Your task to perform on an android device: open app "Grab" (install if not already installed) and go to login screen Image 0: 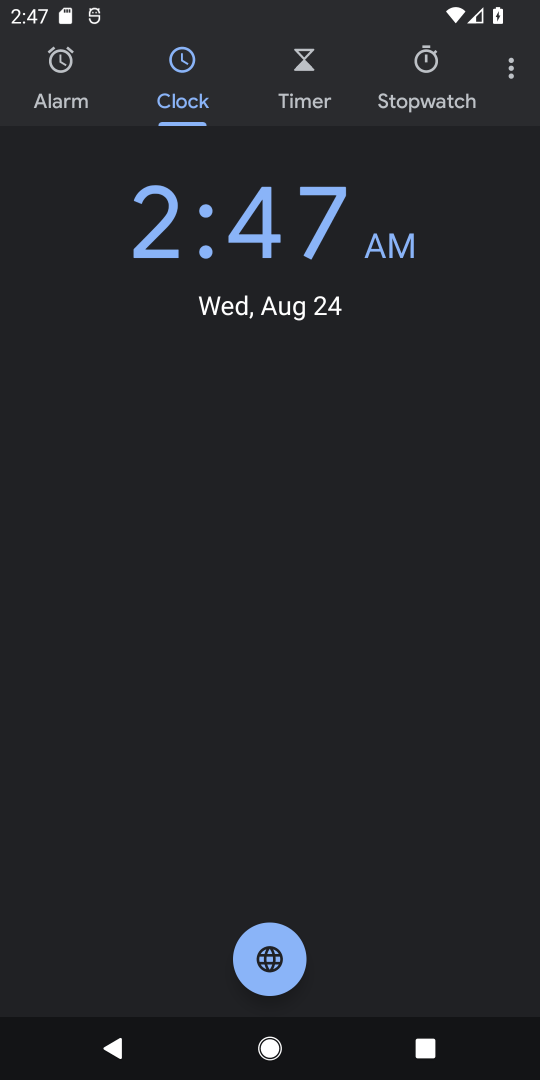
Step 0: press home button
Your task to perform on an android device: open app "Grab" (install if not already installed) and go to login screen Image 1: 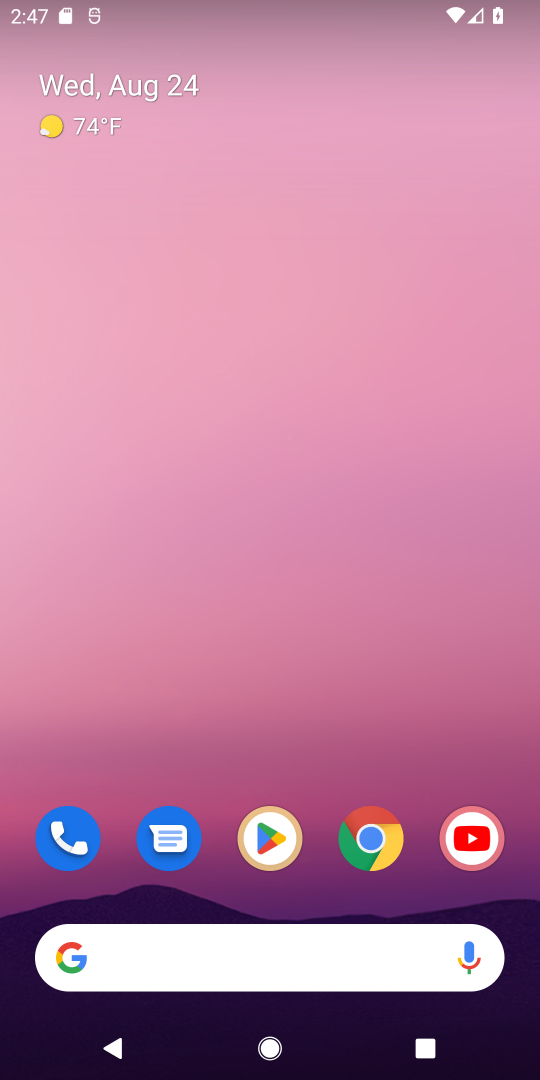
Step 1: click (281, 841)
Your task to perform on an android device: open app "Grab" (install if not already installed) and go to login screen Image 2: 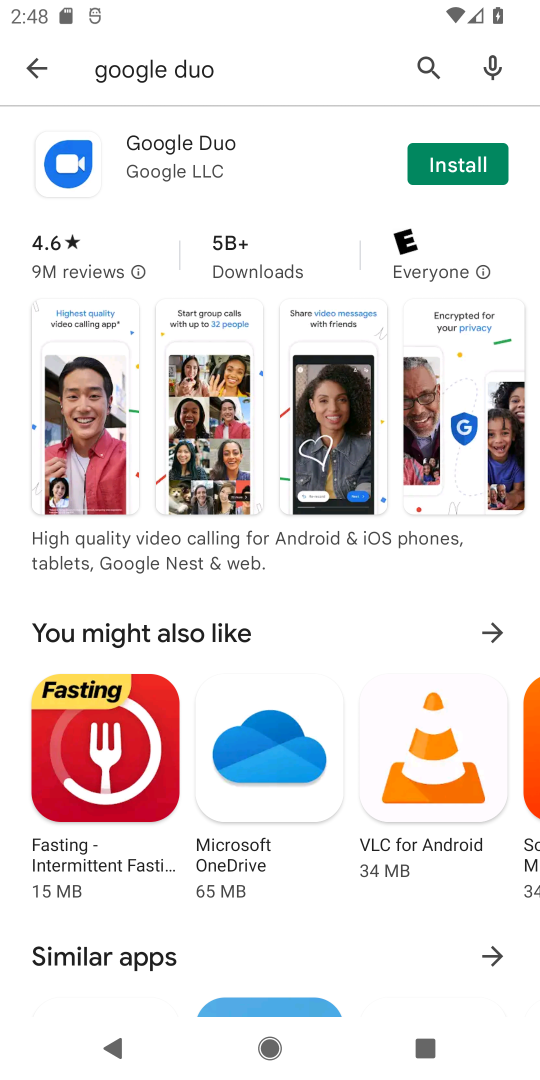
Step 2: click (42, 77)
Your task to perform on an android device: open app "Grab" (install if not already installed) and go to login screen Image 3: 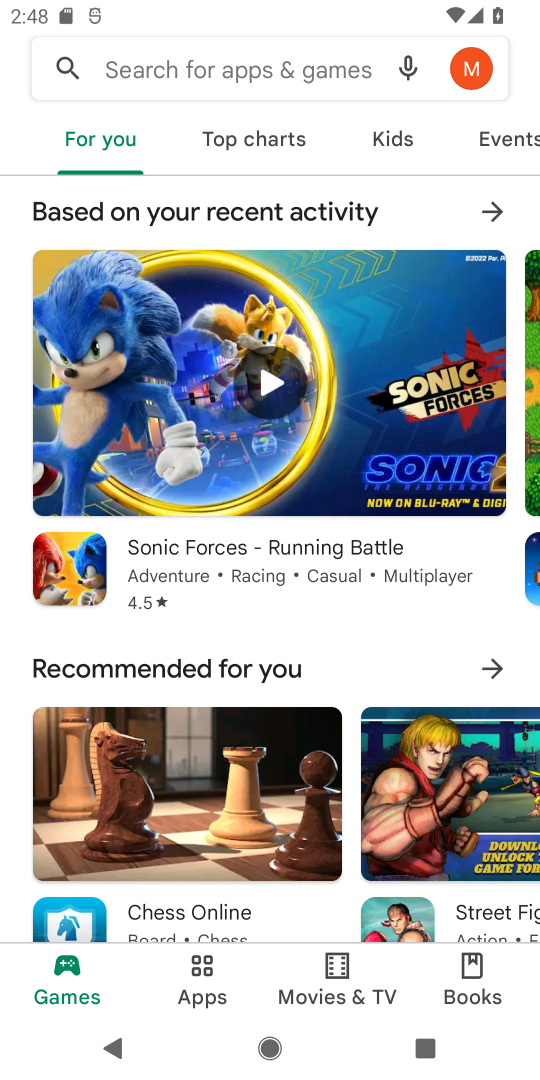
Step 3: click (191, 60)
Your task to perform on an android device: open app "Grab" (install if not already installed) and go to login screen Image 4: 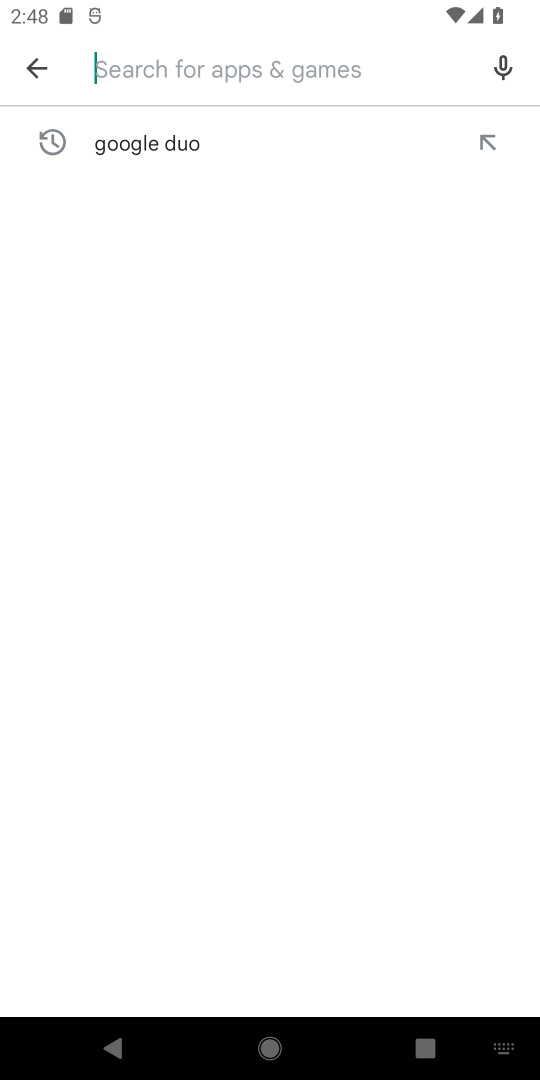
Step 4: type "Grab"
Your task to perform on an android device: open app "Grab" (install if not already installed) and go to login screen Image 5: 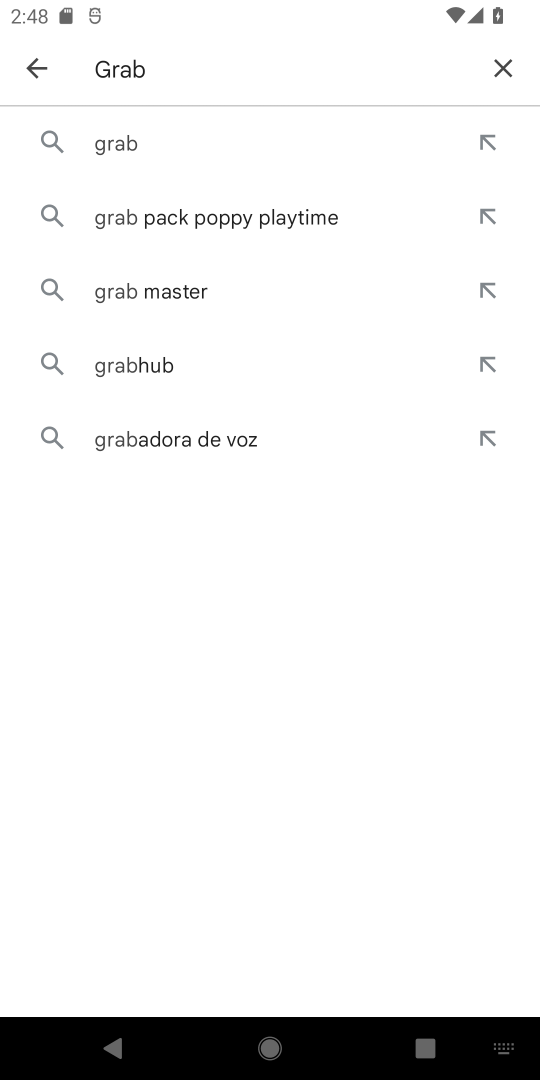
Step 5: click (126, 151)
Your task to perform on an android device: open app "Grab" (install if not already installed) and go to login screen Image 6: 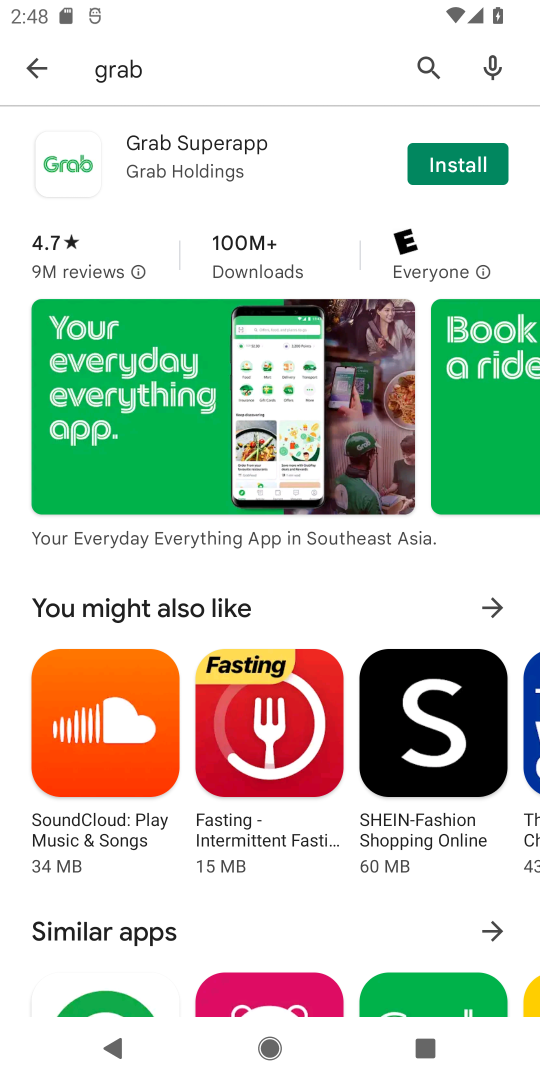
Step 6: click (444, 157)
Your task to perform on an android device: open app "Grab" (install if not already installed) and go to login screen Image 7: 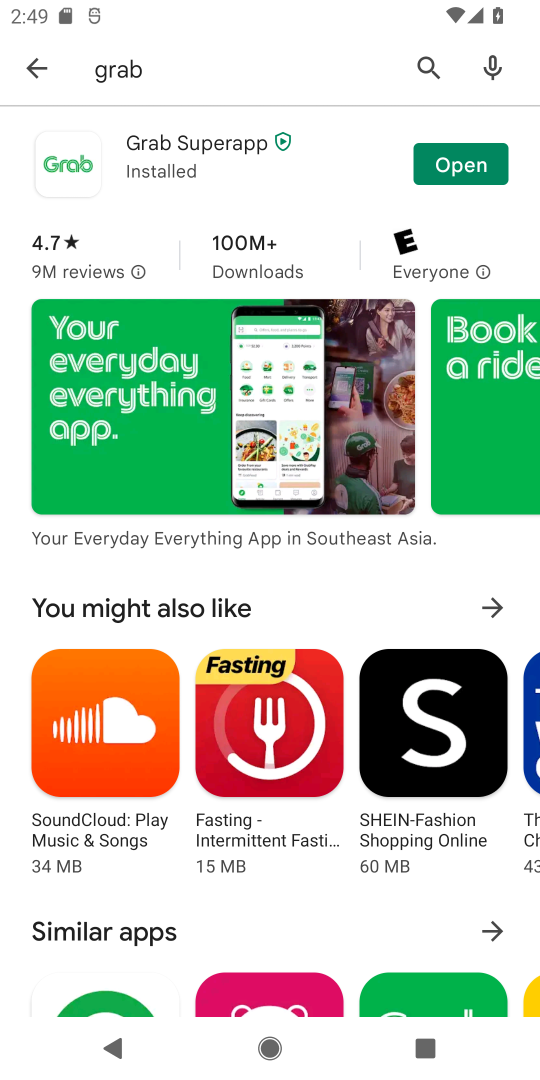
Step 7: click (466, 179)
Your task to perform on an android device: open app "Grab" (install if not already installed) and go to login screen Image 8: 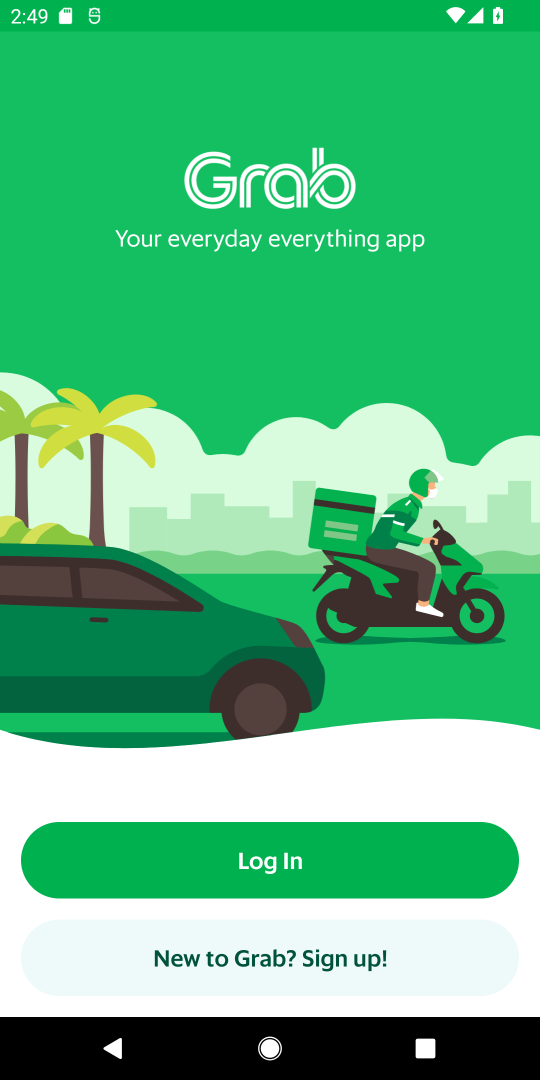
Step 8: click (339, 865)
Your task to perform on an android device: open app "Grab" (install if not already installed) and go to login screen Image 9: 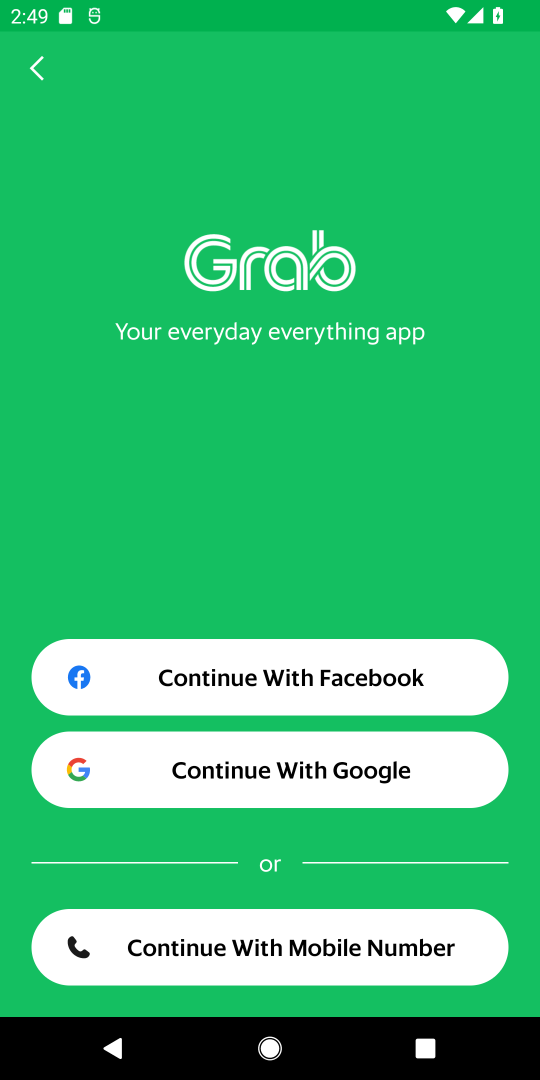
Step 9: task complete